Your task to perform on an android device: turn notification dots off Image 0: 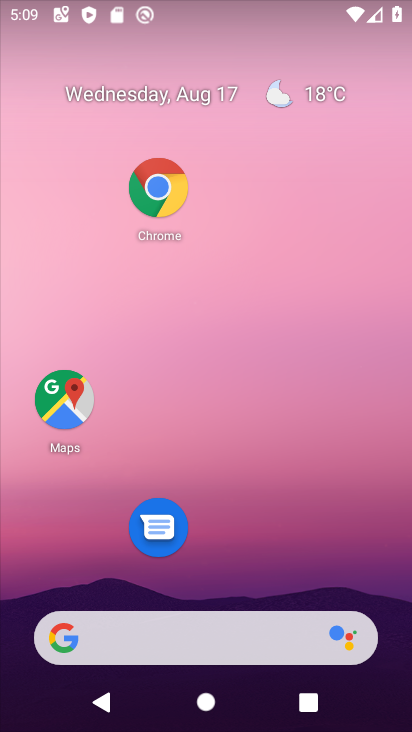
Step 0: drag from (207, 587) to (262, 91)
Your task to perform on an android device: turn notification dots off Image 1: 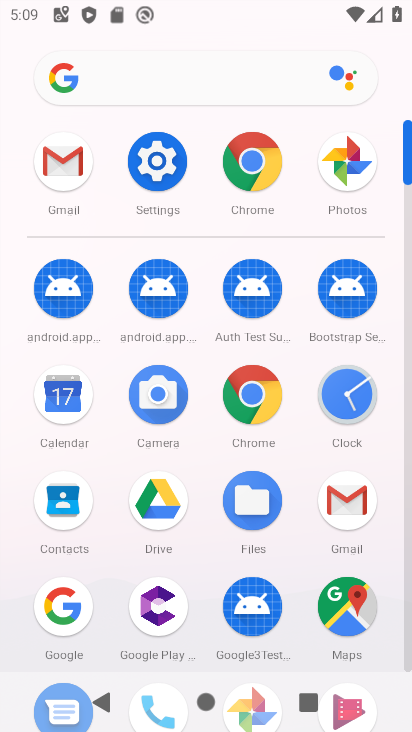
Step 1: click (140, 173)
Your task to perform on an android device: turn notification dots off Image 2: 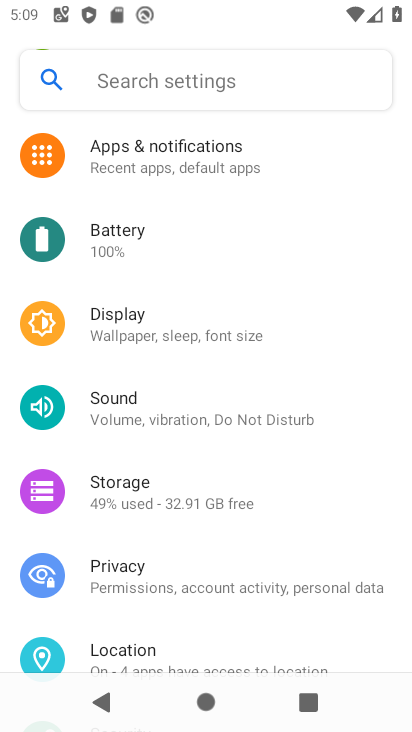
Step 2: click (140, 173)
Your task to perform on an android device: turn notification dots off Image 3: 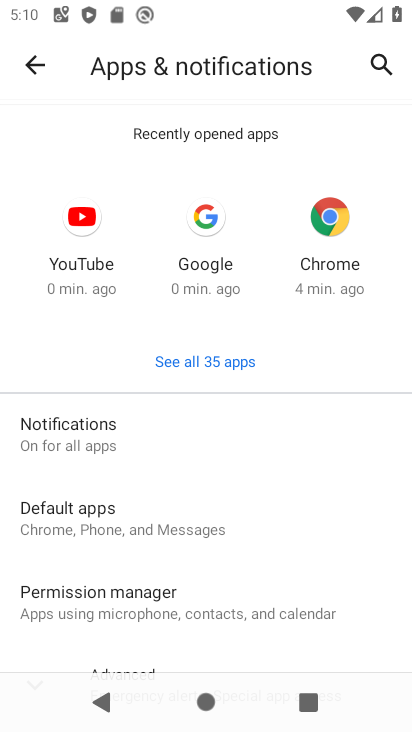
Step 3: click (118, 448)
Your task to perform on an android device: turn notification dots off Image 4: 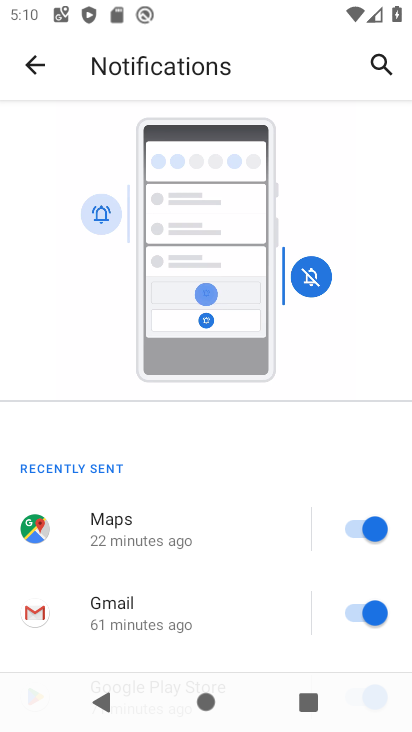
Step 4: drag from (190, 572) to (223, 154)
Your task to perform on an android device: turn notification dots off Image 5: 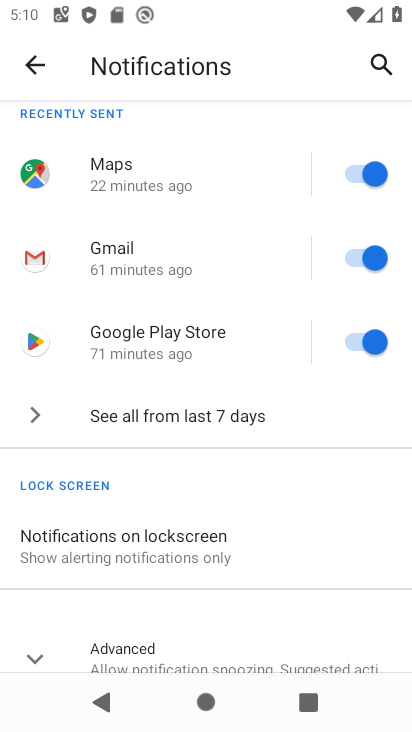
Step 5: drag from (155, 580) to (213, 270)
Your task to perform on an android device: turn notification dots off Image 6: 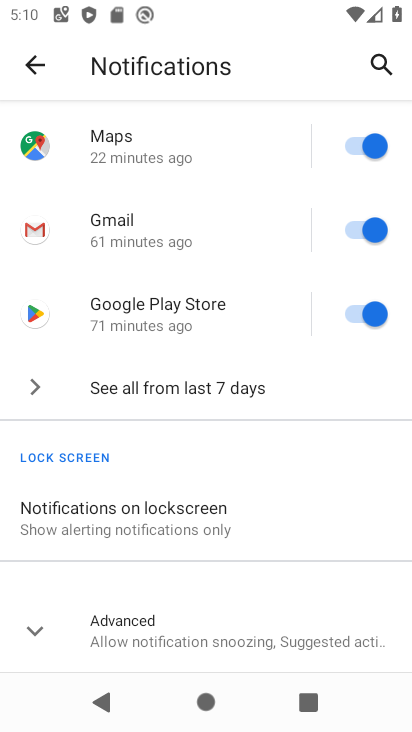
Step 6: click (155, 623)
Your task to perform on an android device: turn notification dots off Image 7: 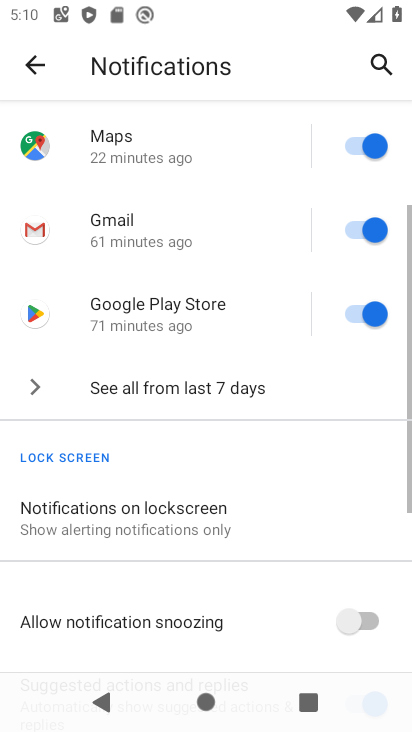
Step 7: drag from (155, 623) to (193, 278)
Your task to perform on an android device: turn notification dots off Image 8: 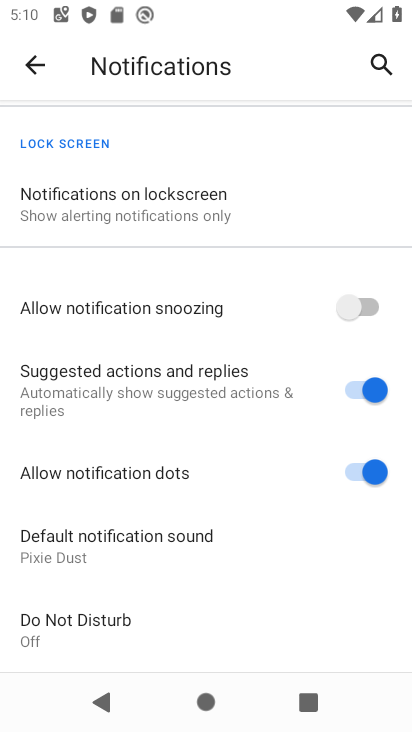
Step 8: drag from (203, 560) to (246, 145)
Your task to perform on an android device: turn notification dots off Image 9: 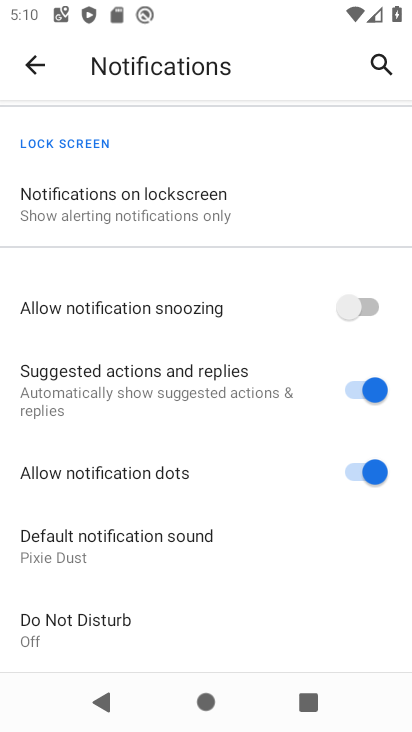
Step 9: click (374, 467)
Your task to perform on an android device: turn notification dots off Image 10: 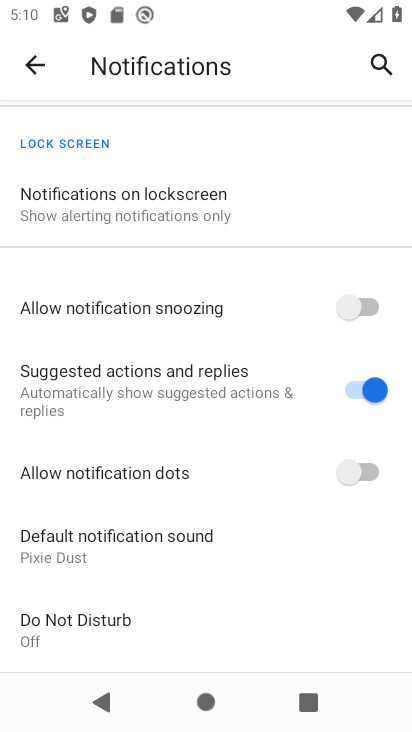
Step 10: task complete